Your task to perform on an android device: open chrome and create a bookmark for the current page Image 0: 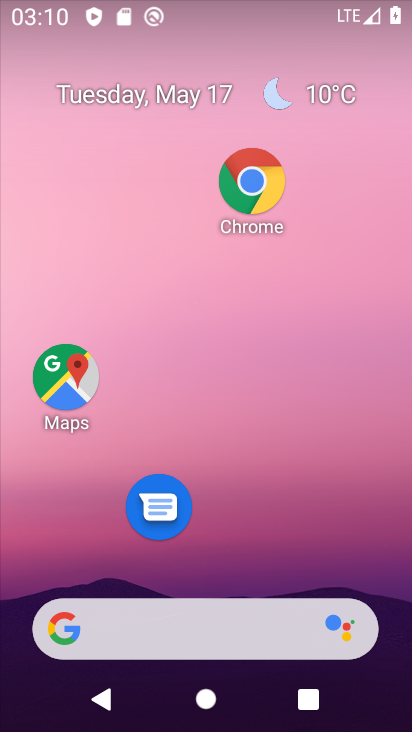
Step 0: click (256, 180)
Your task to perform on an android device: open chrome and create a bookmark for the current page Image 1: 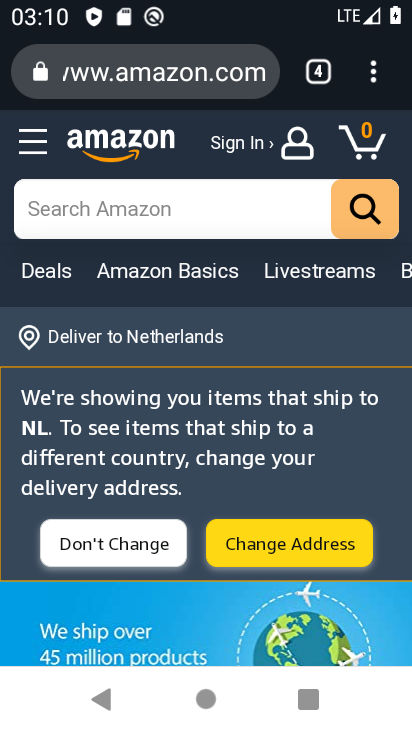
Step 1: click (384, 66)
Your task to perform on an android device: open chrome and create a bookmark for the current page Image 2: 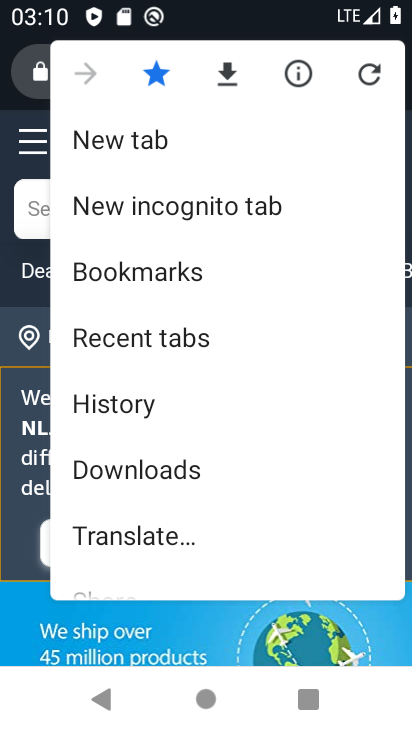
Step 2: task complete